Your task to perform on an android device: install app "Google Home" Image 0: 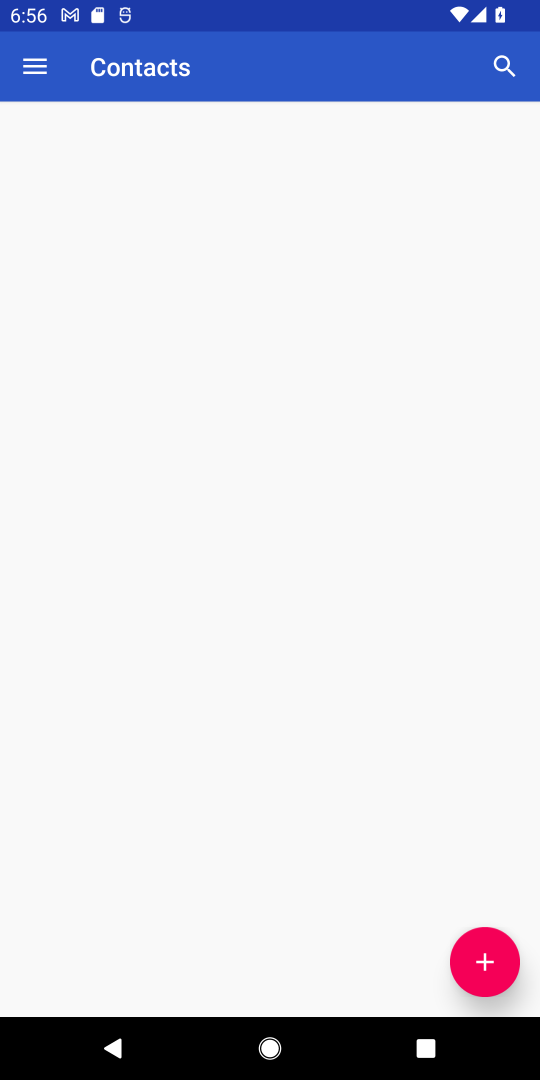
Step 0: press home button
Your task to perform on an android device: install app "Google Home" Image 1: 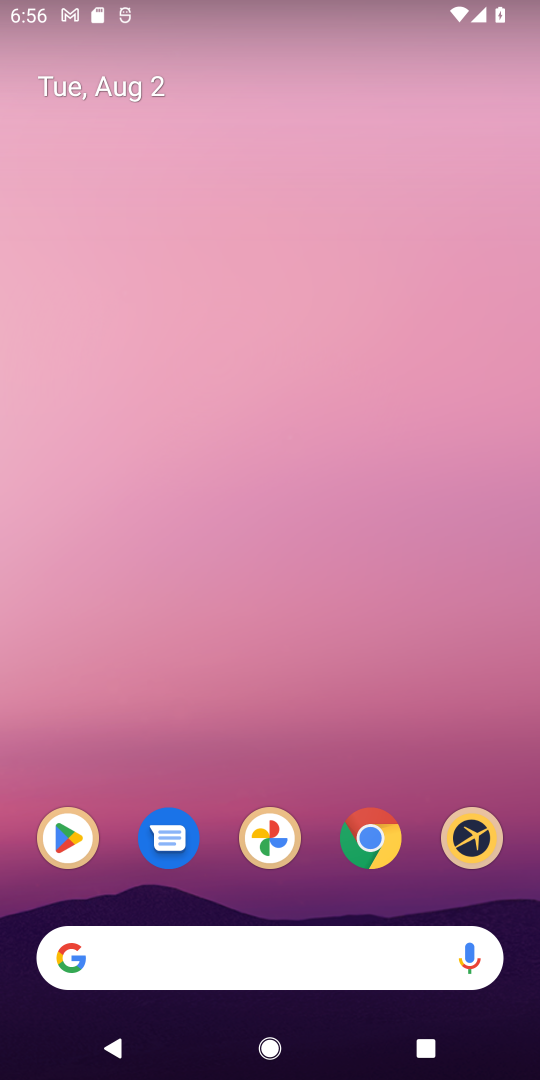
Step 1: click (63, 846)
Your task to perform on an android device: install app "Google Home" Image 2: 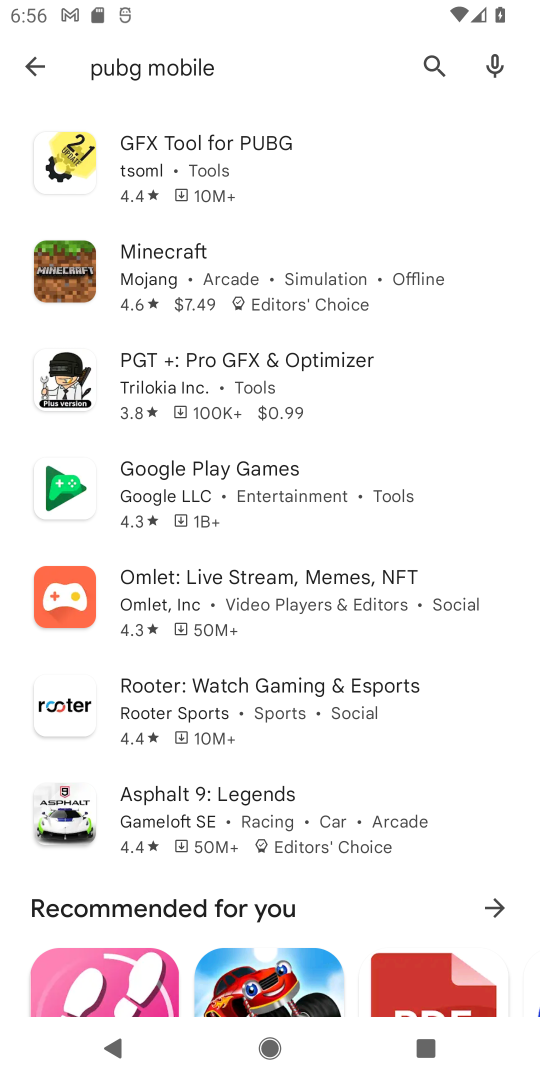
Step 2: click (439, 73)
Your task to perform on an android device: install app "Google Home" Image 3: 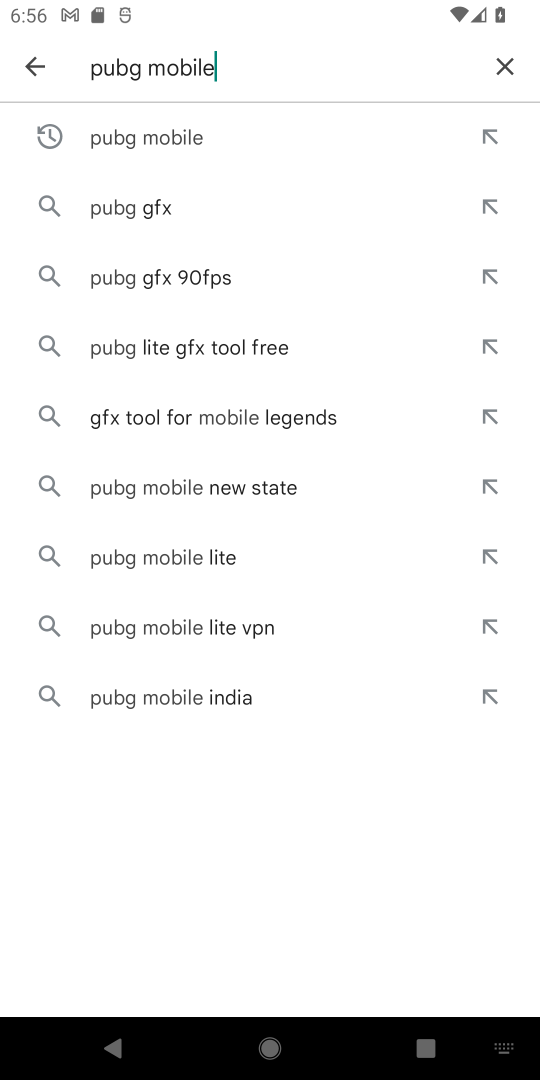
Step 3: click (500, 54)
Your task to perform on an android device: install app "Google Home" Image 4: 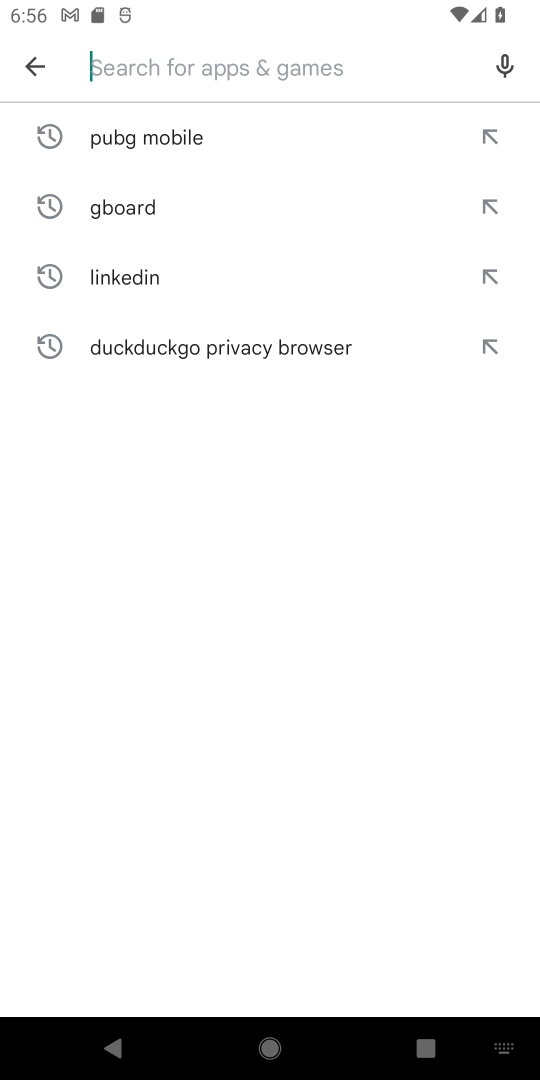
Step 4: type "google home"
Your task to perform on an android device: install app "Google Home" Image 5: 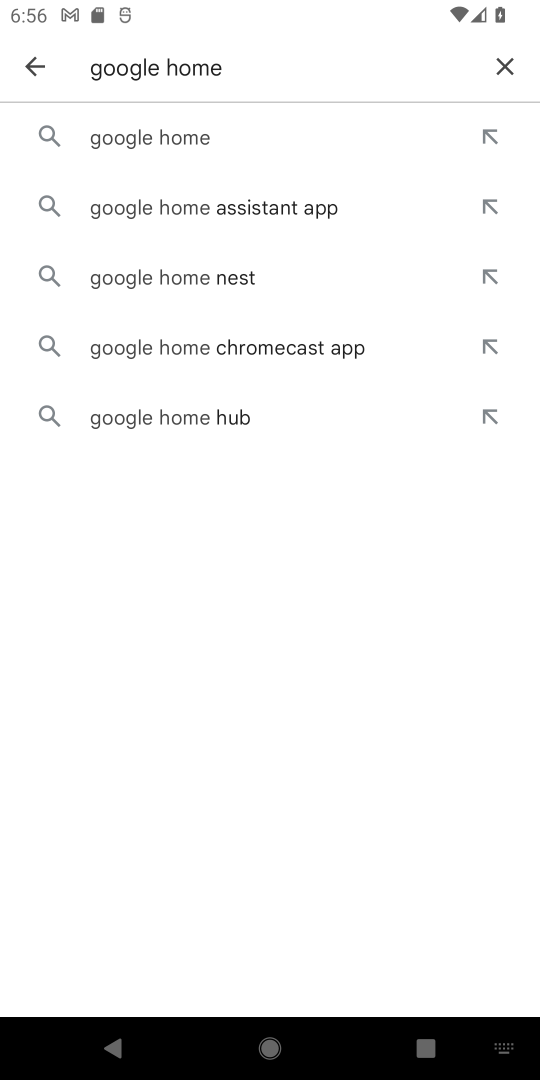
Step 5: click (235, 115)
Your task to perform on an android device: install app "Google Home" Image 6: 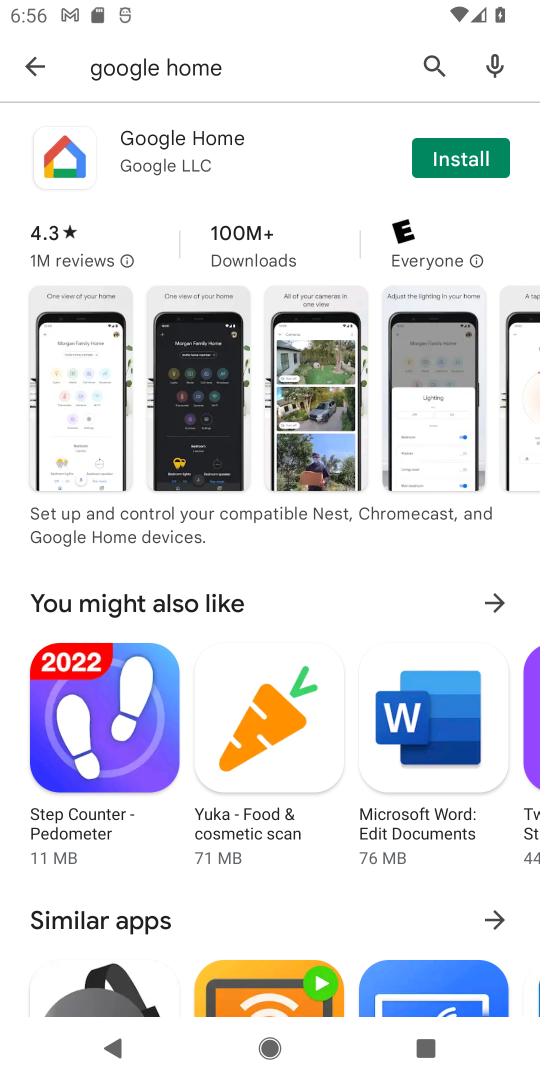
Step 6: click (229, 127)
Your task to perform on an android device: install app "Google Home" Image 7: 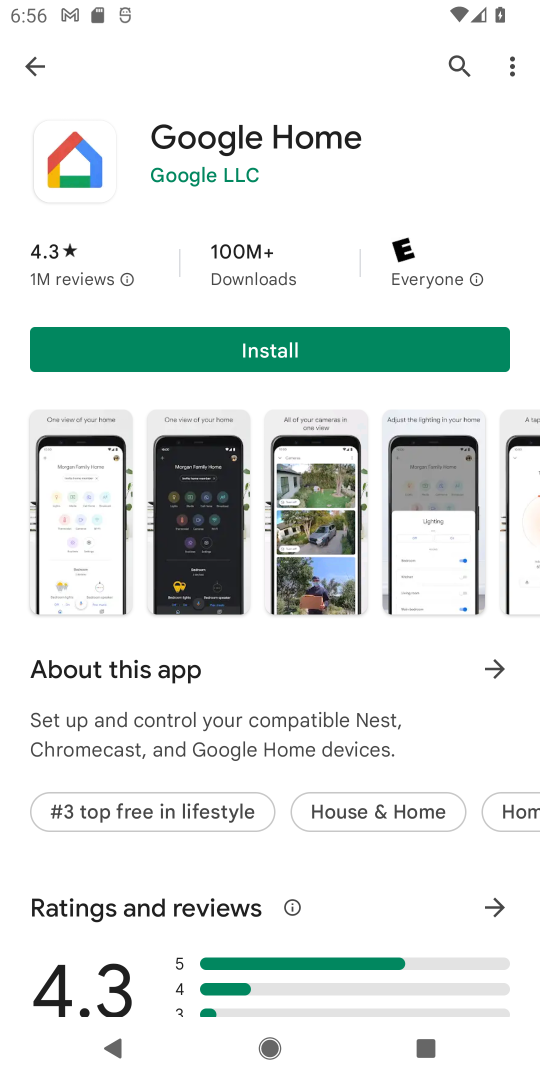
Step 7: click (235, 364)
Your task to perform on an android device: install app "Google Home" Image 8: 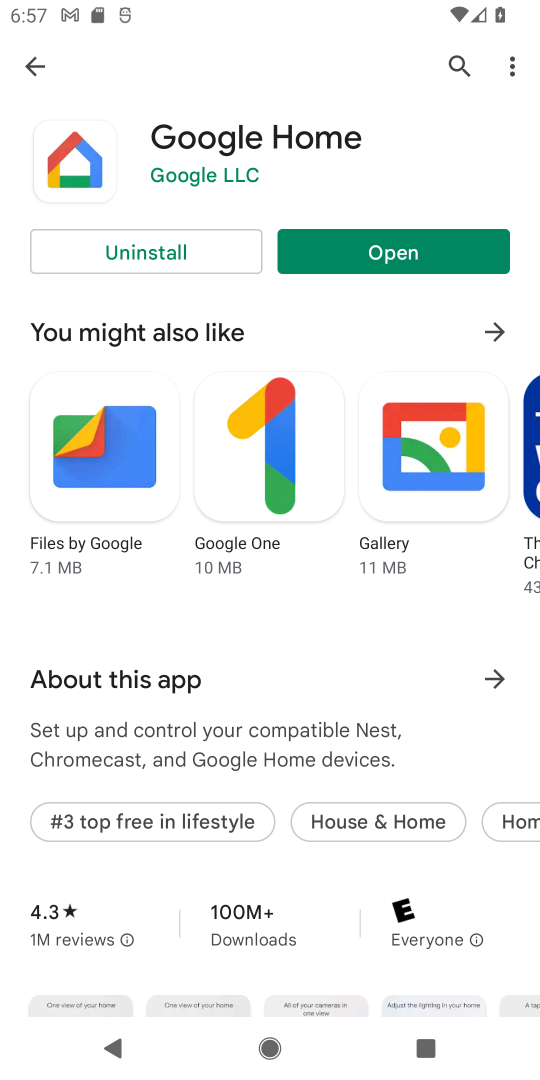
Step 8: task complete